Your task to perform on an android device: Search for vegetarian restaurants on Maps Image 0: 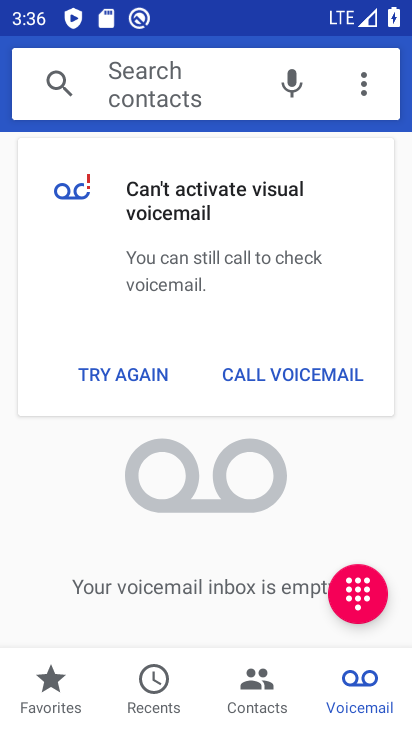
Step 0: press home button
Your task to perform on an android device: Search for vegetarian restaurants on Maps Image 1: 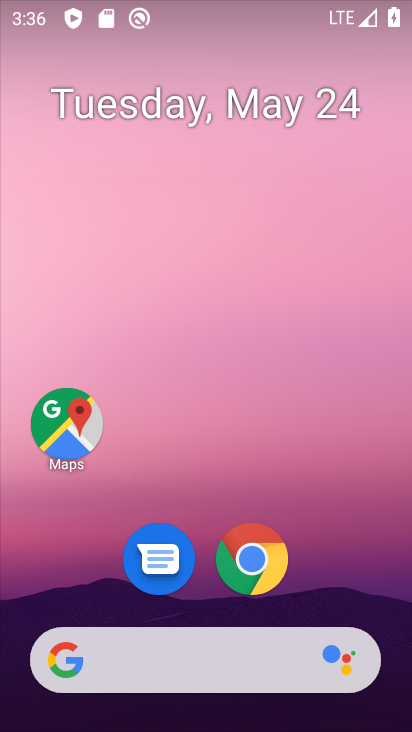
Step 1: click (70, 425)
Your task to perform on an android device: Search for vegetarian restaurants on Maps Image 2: 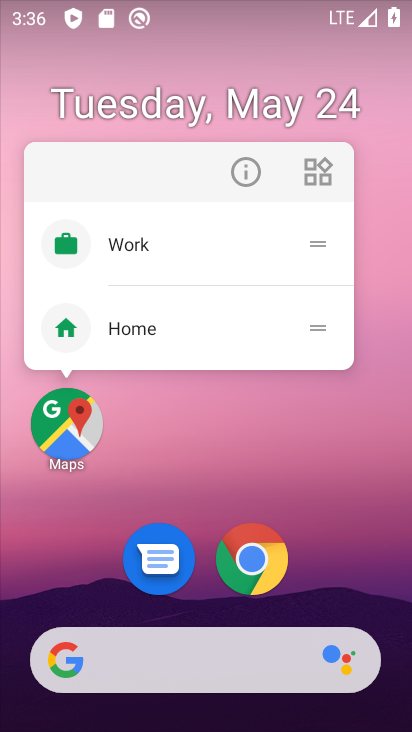
Step 2: click (70, 425)
Your task to perform on an android device: Search for vegetarian restaurants on Maps Image 3: 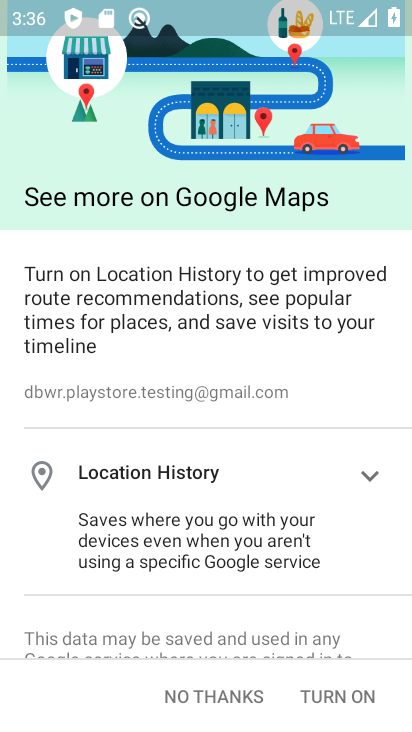
Step 3: click (215, 696)
Your task to perform on an android device: Search for vegetarian restaurants on Maps Image 4: 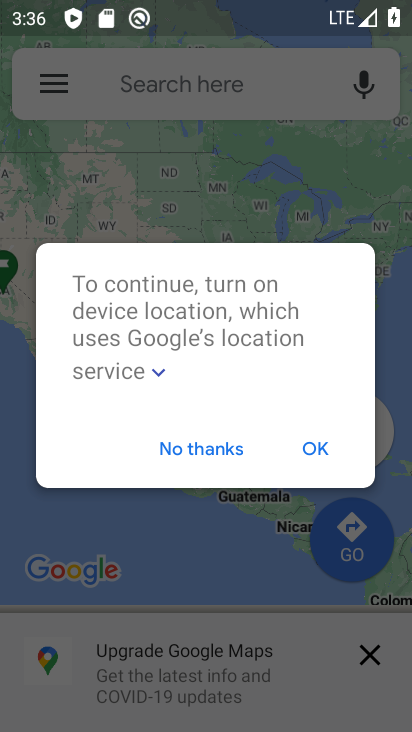
Step 4: click (217, 449)
Your task to perform on an android device: Search for vegetarian restaurants on Maps Image 5: 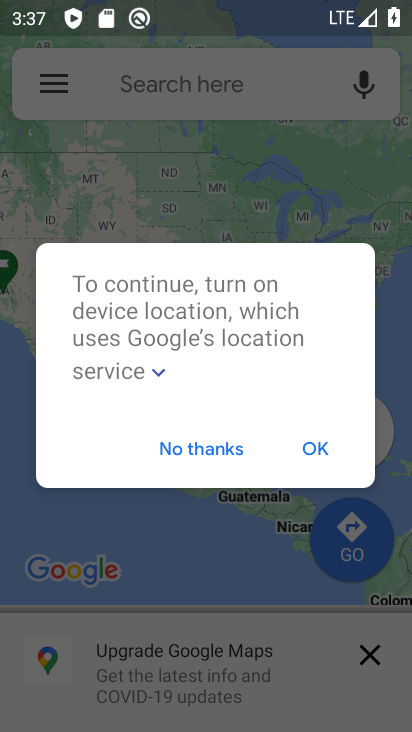
Step 5: click (200, 454)
Your task to perform on an android device: Search for vegetarian restaurants on Maps Image 6: 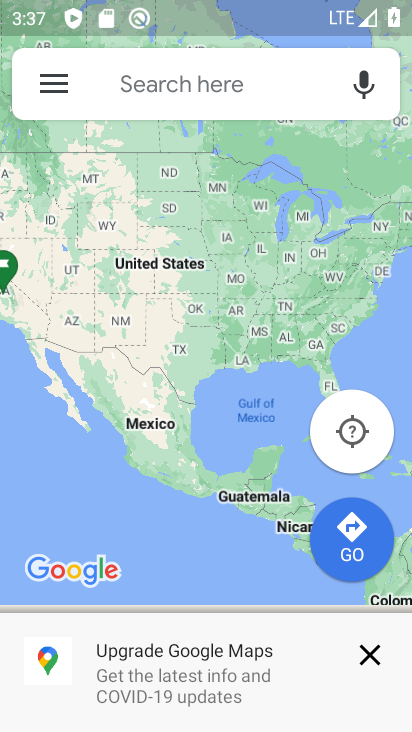
Step 6: click (180, 82)
Your task to perform on an android device: Search for vegetarian restaurants on Maps Image 7: 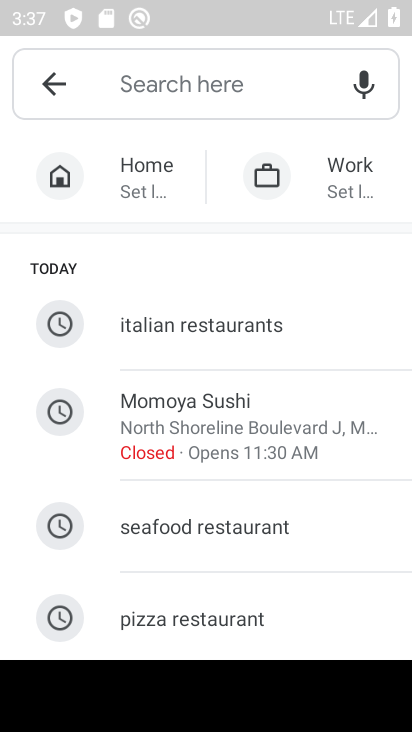
Step 7: type "vegetarian restaurants"
Your task to perform on an android device: Search for vegetarian restaurants on Maps Image 8: 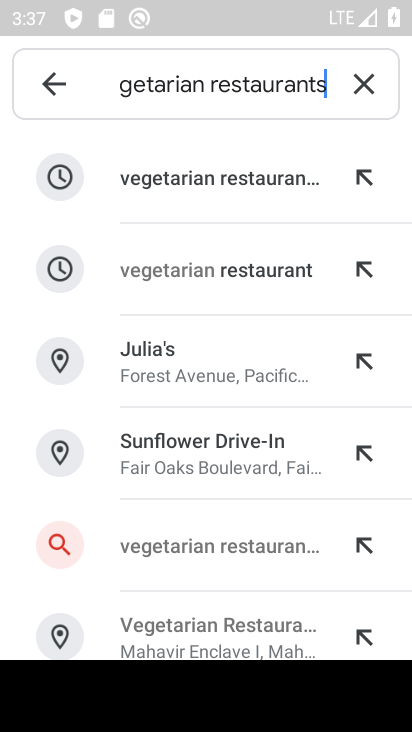
Step 8: click (201, 186)
Your task to perform on an android device: Search for vegetarian restaurants on Maps Image 9: 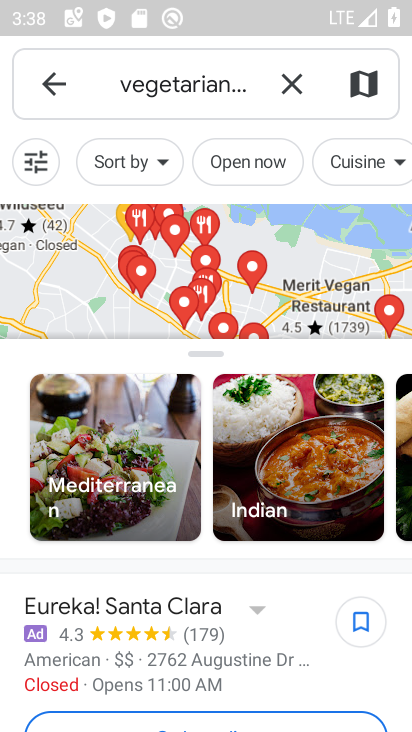
Step 9: task complete